Your task to perform on an android device: turn on javascript in the chrome app Image 0: 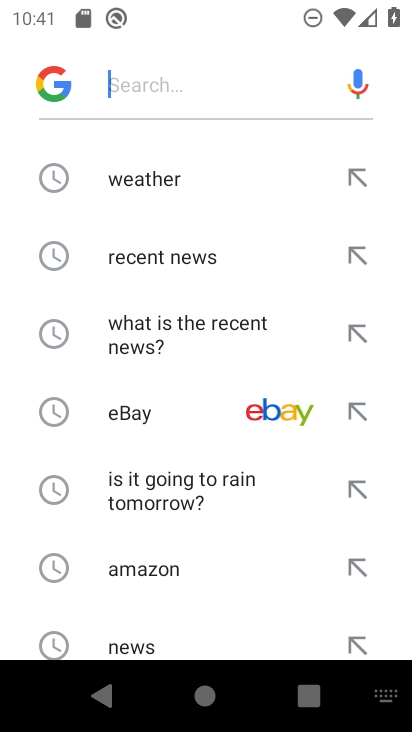
Step 0: press home button
Your task to perform on an android device: turn on javascript in the chrome app Image 1: 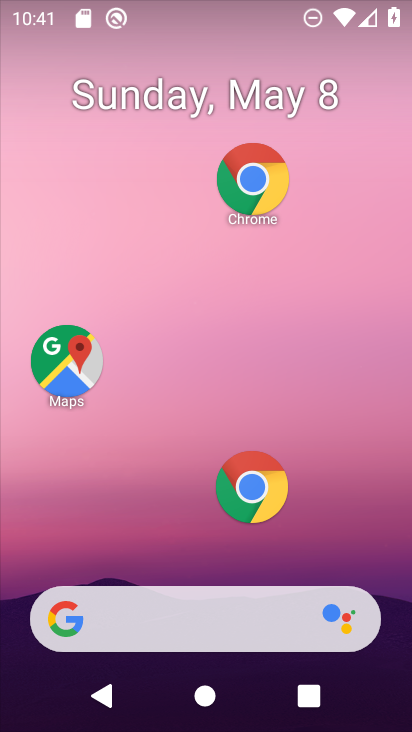
Step 1: drag from (183, 522) to (212, 23)
Your task to perform on an android device: turn on javascript in the chrome app Image 2: 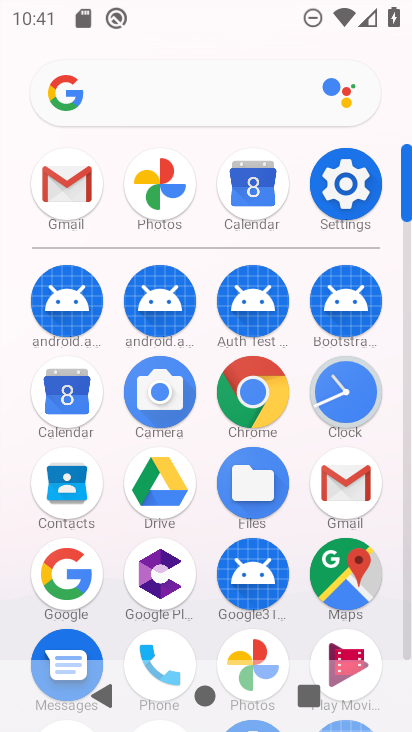
Step 2: click (250, 400)
Your task to perform on an android device: turn on javascript in the chrome app Image 3: 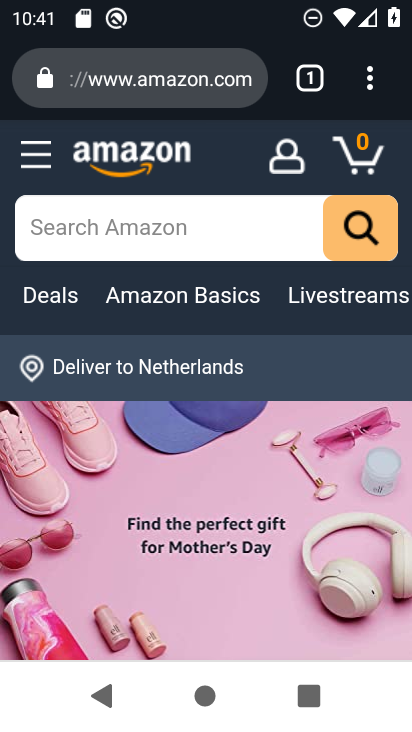
Step 3: click (373, 82)
Your task to perform on an android device: turn on javascript in the chrome app Image 4: 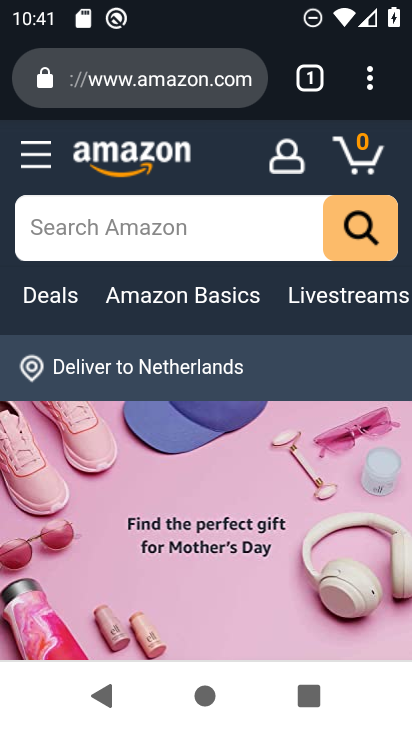
Step 4: click (373, 82)
Your task to perform on an android device: turn on javascript in the chrome app Image 5: 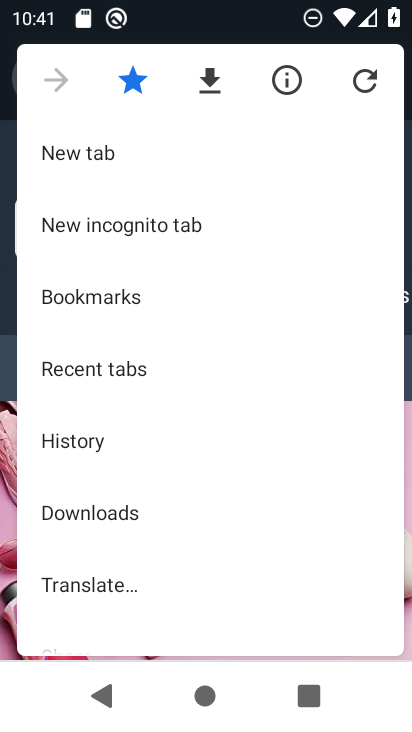
Step 5: drag from (196, 562) to (183, 156)
Your task to perform on an android device: turn on javascript in the chrome app Image 6: 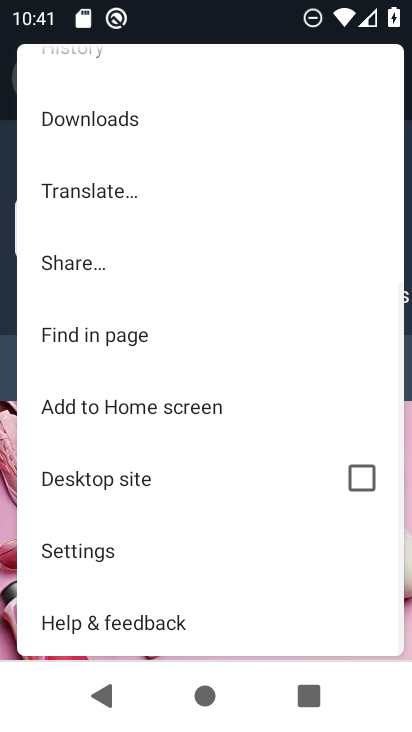
Step 6: click (109, 549)
Your task to perform on an android device: turn on javascript in the chrome app Image 7: 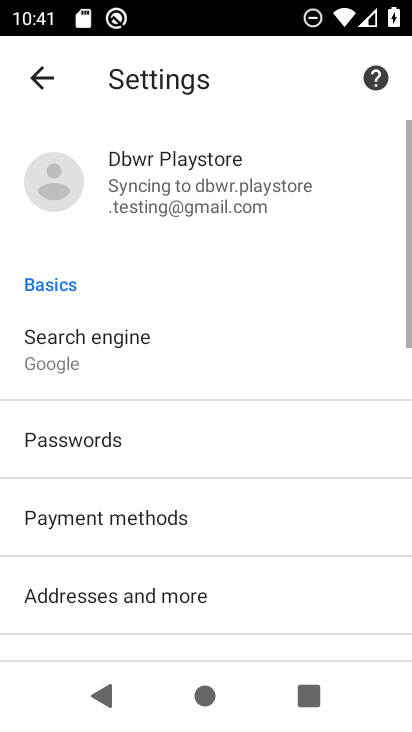
Step 7: drag from (204, 597) to (289, 131)
Your task to perform on an android device: turn on javascript in the chrome app Image 8: 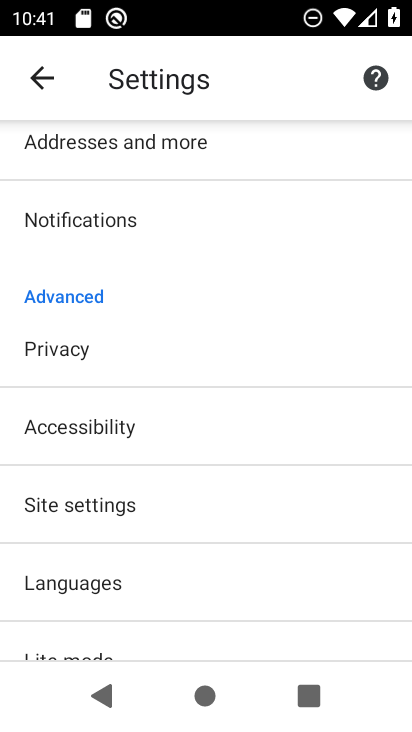
Step 8: click (179, 516)
Your task to perform on an android device: turn on javascript in the chrome app Image 9: 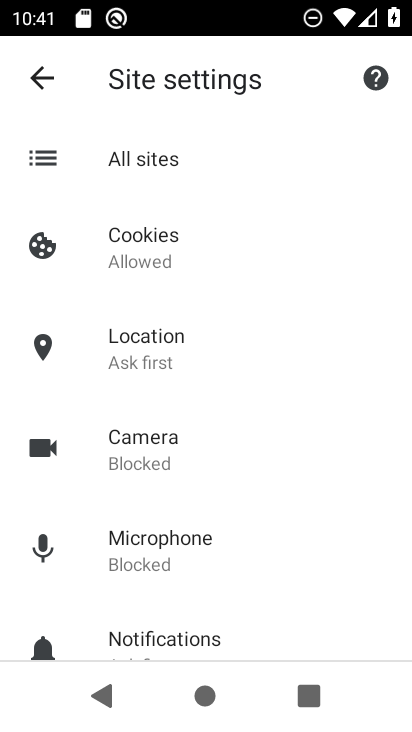
Step 9: drag from (237, 582) to (289, 280)
Your task to perform on an android device: turn on javascript in the chrome app Image 10: 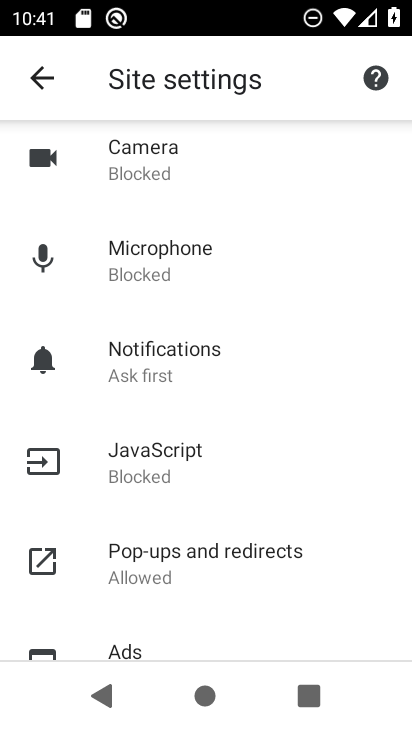
Step 10: click (223, 471)
Your task to perform on an android device: turn on javascript in the chrome app Image 11: 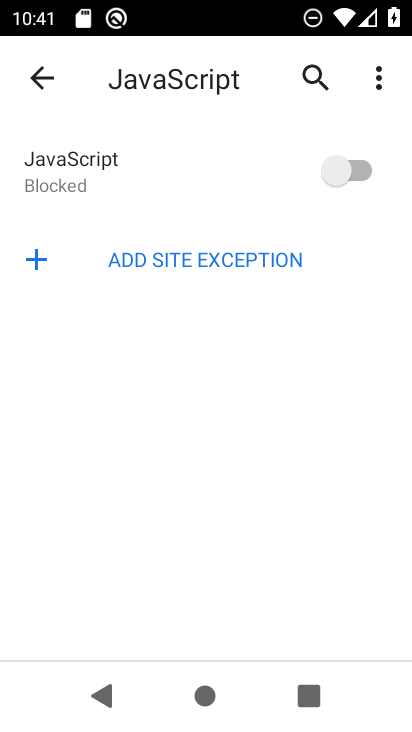
Step 11: click (354, 165)
Your task to perform on an android device: turn on javascript in the chrome app Image 12: 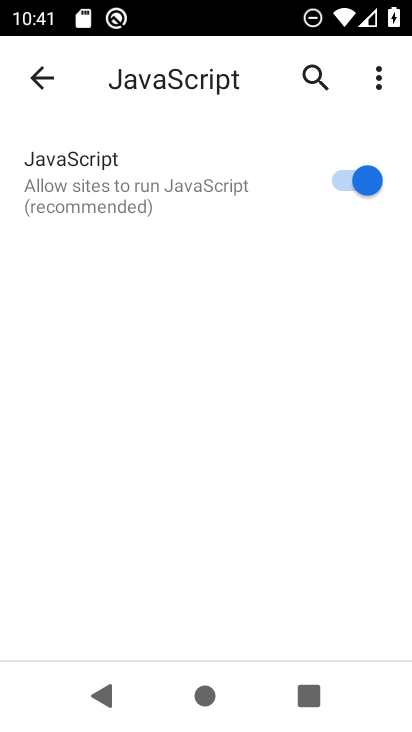
Step 12: task complete